Your task to perform on an android device: turn on translation in the chrome app Image 0: 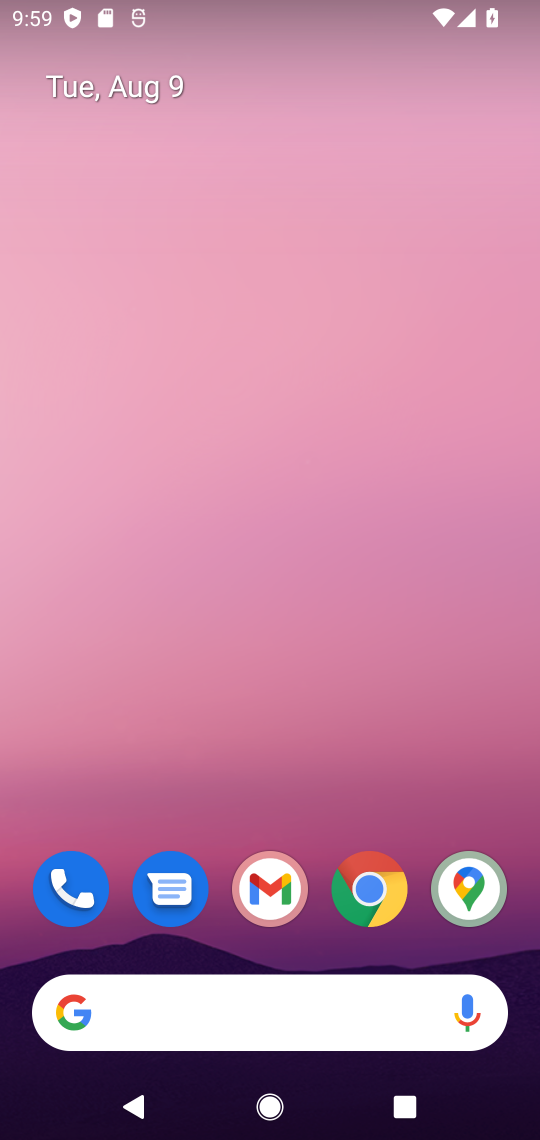
Step 0: click (354, 900)
Your task to perform on an android device: turn on translation in the chrome app Image 1: 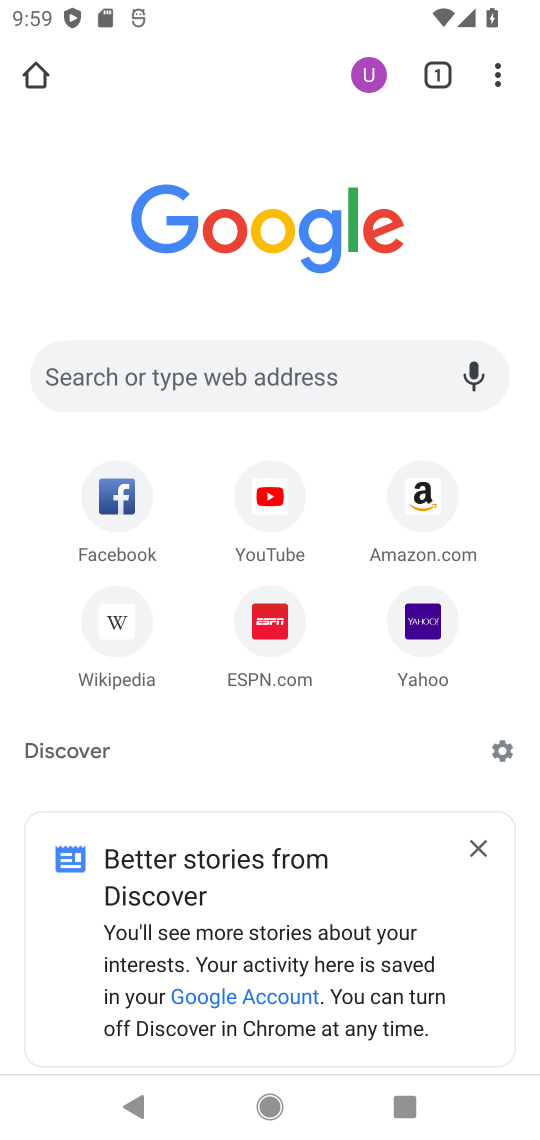
Step 1: drag from (497, 58) to (272, 714)
Your task to perform on an android device: turn on translation in the chrome app Image 2: 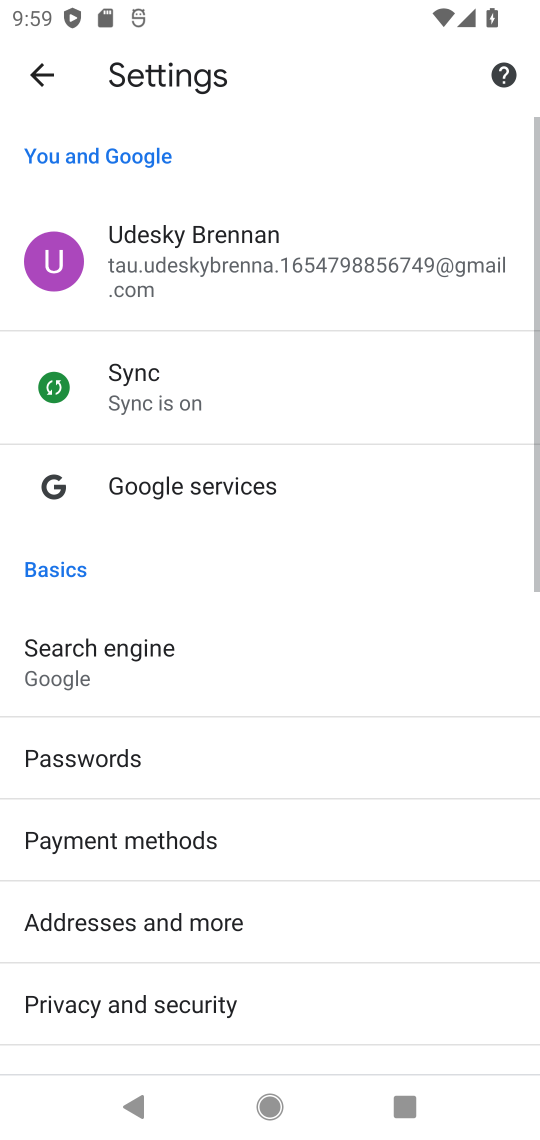
Step 2: drag from (232, 956) to (429, 33)
Your task to perform on an android device: turn on translation in the chrome app Image 3: 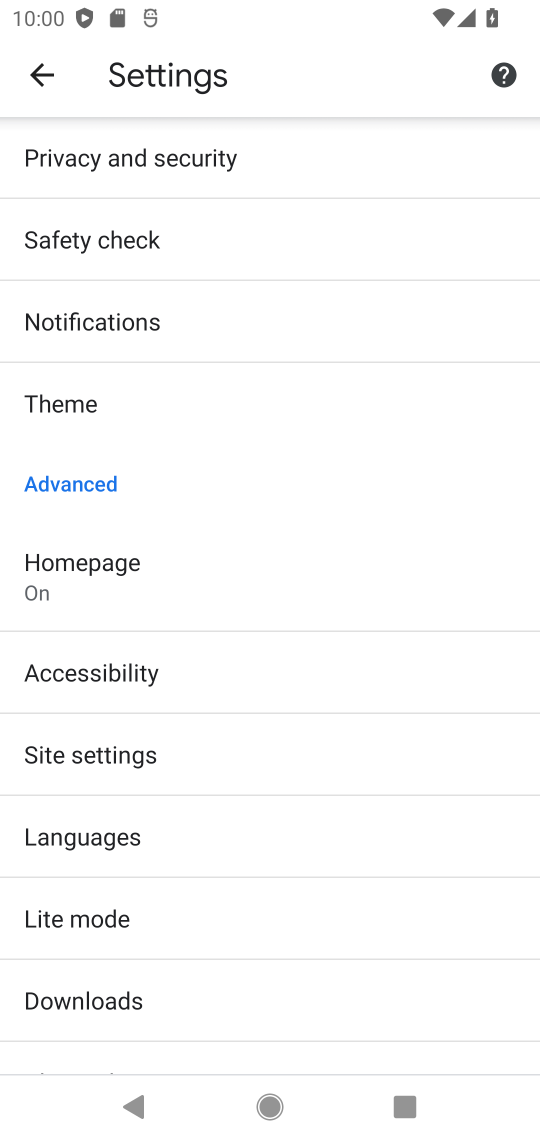
Step 3: click (113, 830)
Your task to perform on an android device: turn on translation in the chrome app Image 4: 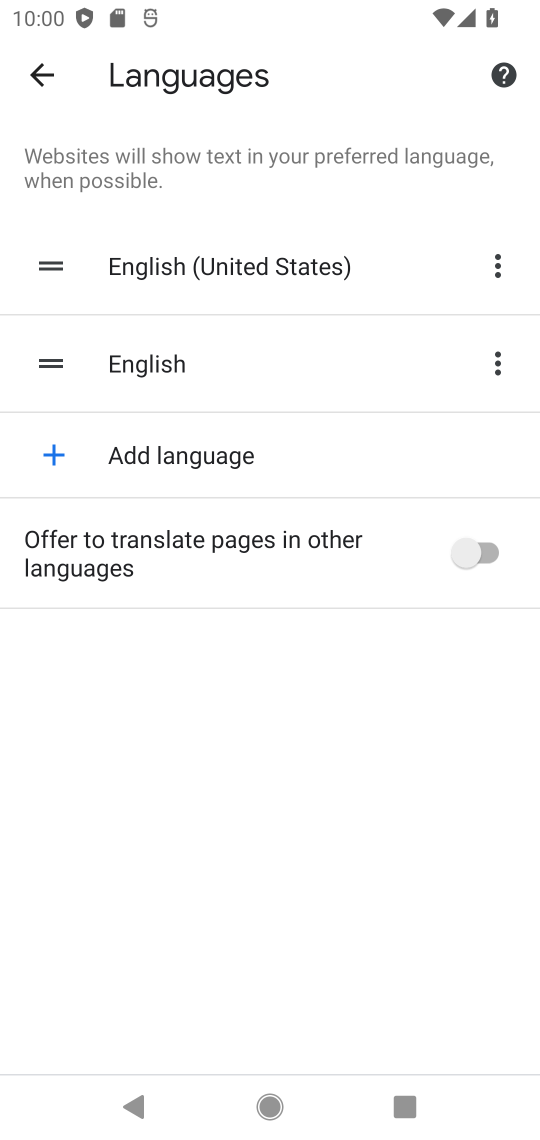
Step 4: click (492, 551)
Your task to perform on an android device: turn on translation in the chrome app Image 5: 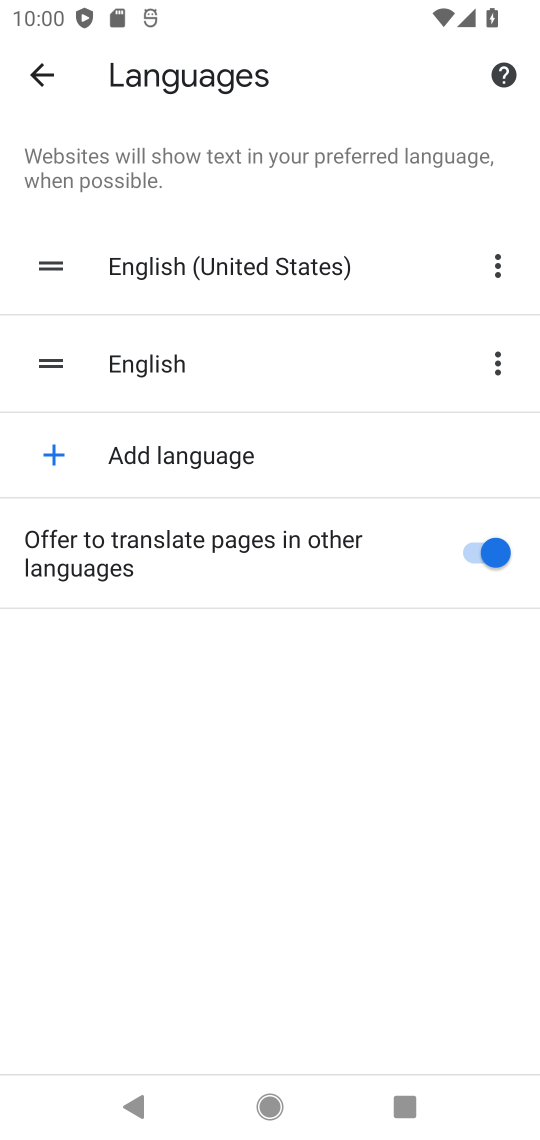
Step 5: task complete